Your task to perform on an android device: turn on javascript in the chrome app Image 0: 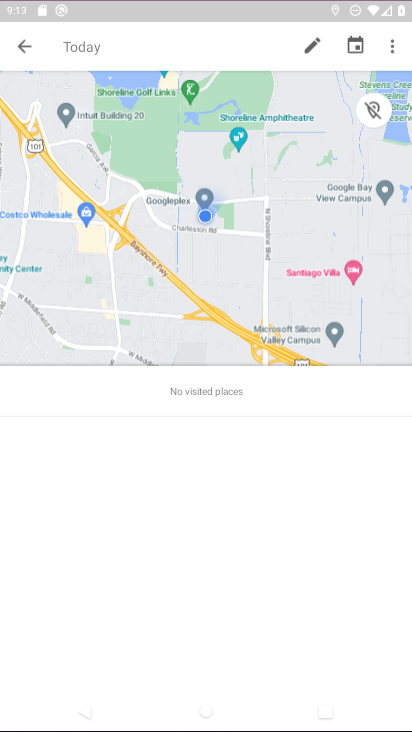
Step 0: drag from (193, 632) to (336, 67)
Your task to perform on an android device: turn on javascript in the chrome app Image 1: 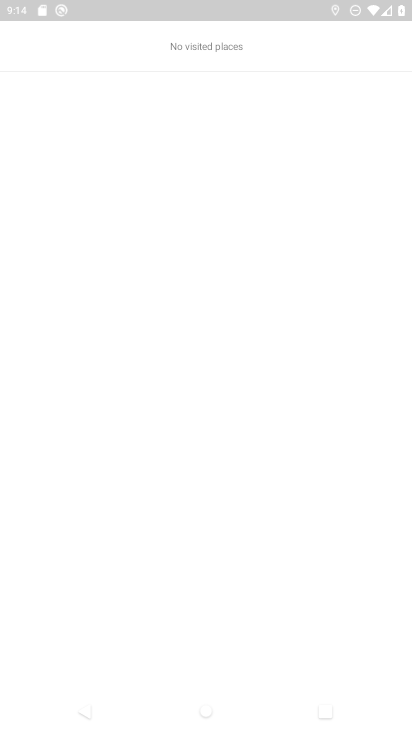
Step 1: press home button
Your task to perform on an android device: turn on javascript in the chrome app Image 2: 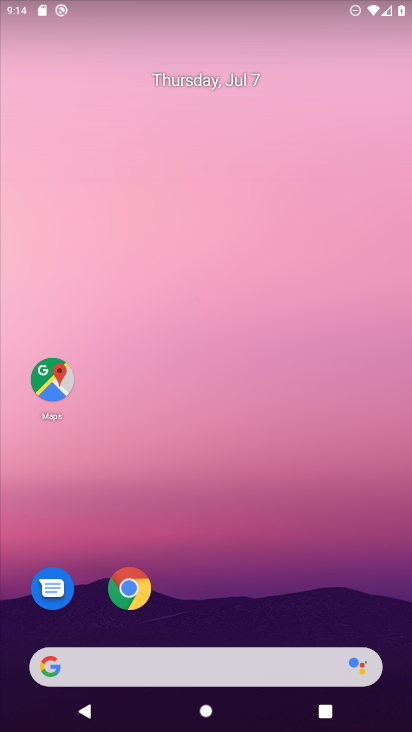
Step 2: click (132, 577)
Your task to perform on an android device: turn on javascript in the chrome app Image 3: 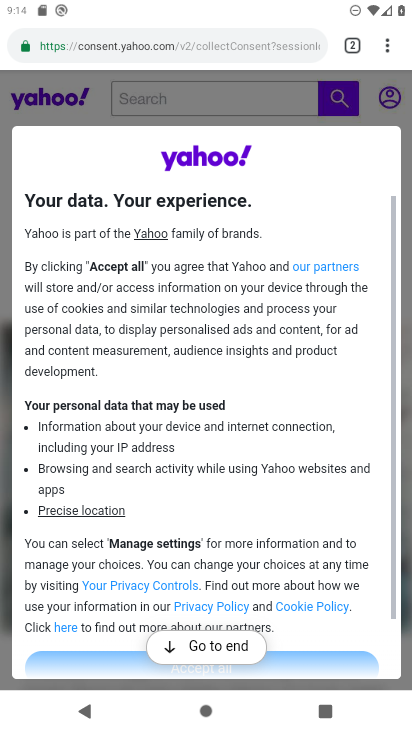
Step 3: click (392, 37)
Your task to perform on an android device: turn on javascript in the chrome app Image 4: 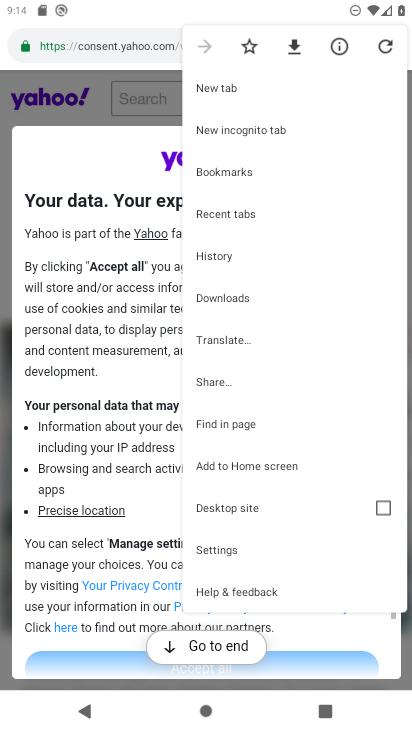
Step 4: click (218, 552)
Your task to perform on an android device: turn on javascript in the chrome app Image 5: 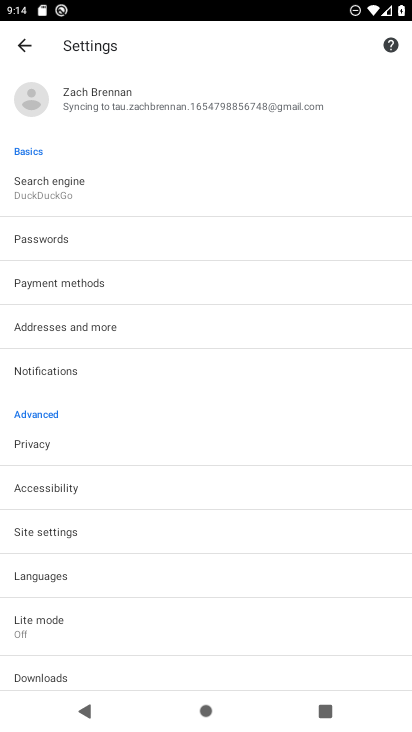
Step 5: click (137, 529)
Your task to perform on an android device: turn on javascript in the chrome app Image 6: 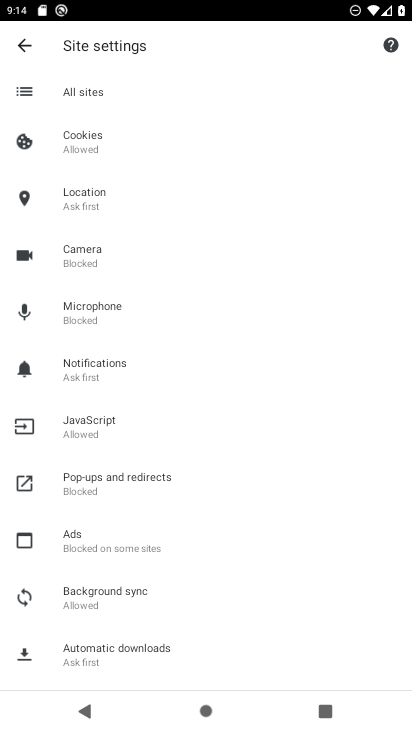
Step 6: click (86, 438)
Your task to perform on an android device: turn on javascript in the chrome app Image 7: 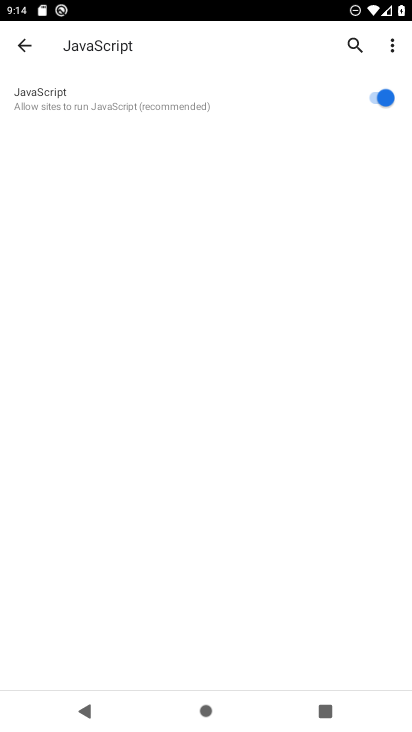
Step 7: task complete